Your task to perform on an android device: Open calendar and show me the first week of next month Image 0: 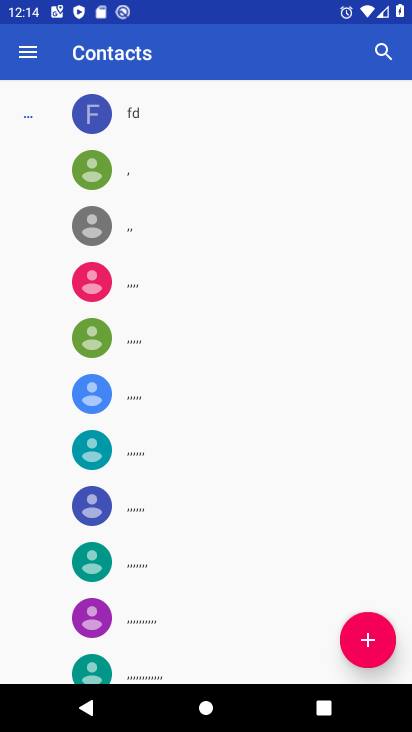
Step 0: press home button
Your task to perform on an android device: Open calendar and show me the first week of next month Image 1: 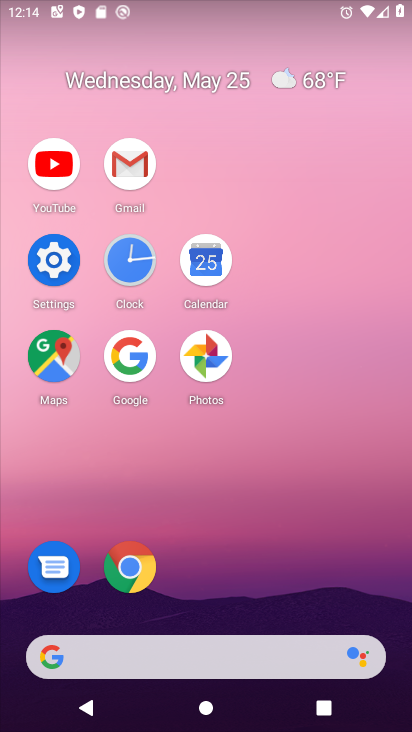
Step 1: click (216, 265)
Your task to perform on an android device: Open calendar and show me the first week of next month Image 2: 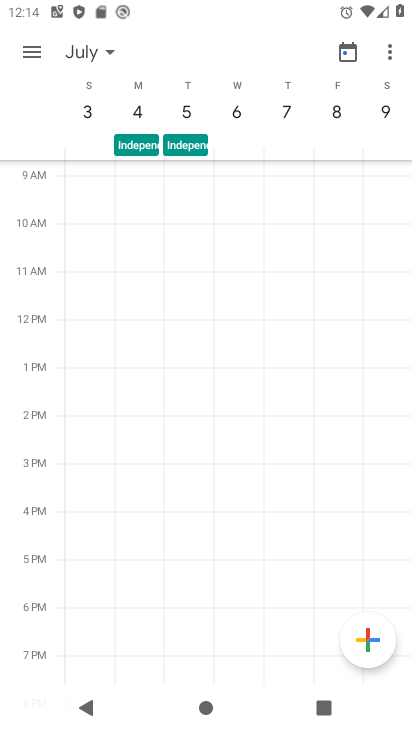
Step 2: task complete